Your task to perform on an android device: Go to display settings Image 0: 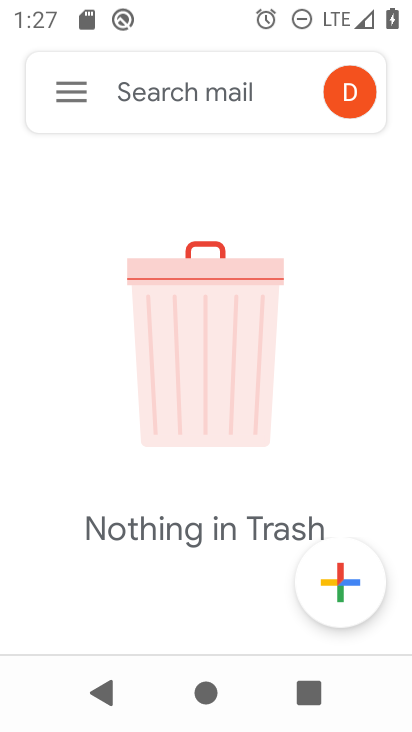
Step 0: press home button
Your task to perform on an android device: Go to display settings Image 1: 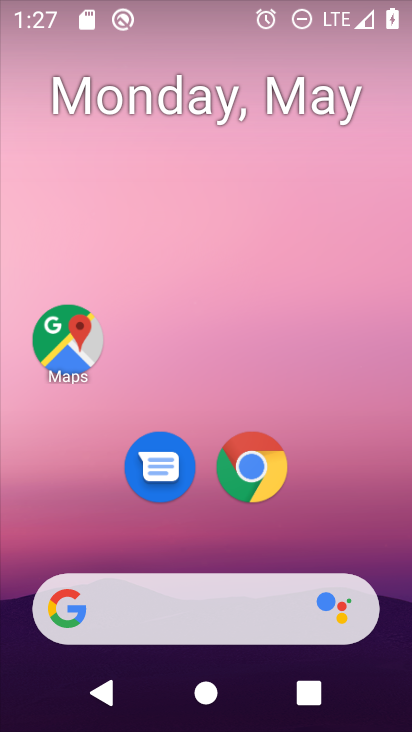
Step 1: drag from (350, 550) to (324, 5)
Your task to perform on an android device: Go to display settings Image 2: 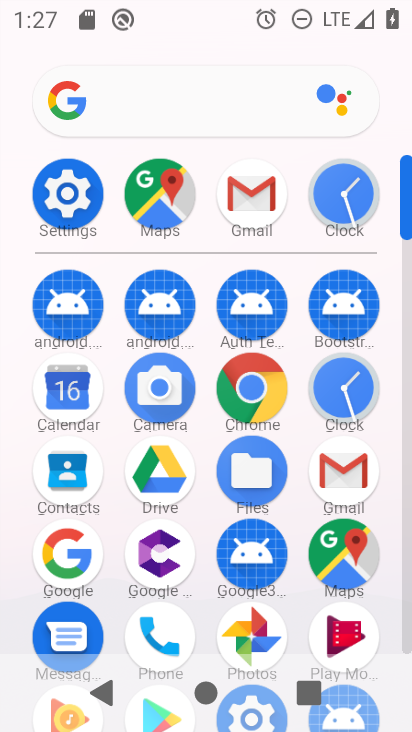
Step 2: click (65, 193)
Your task to perform on an android device: Go to display settings Image 3: 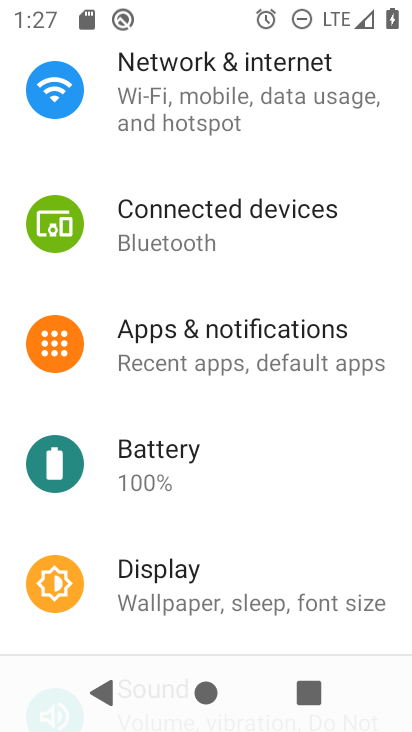
Step 3: click (164, 592)
Your task to perform on an android device: Go to display settings Image 4: 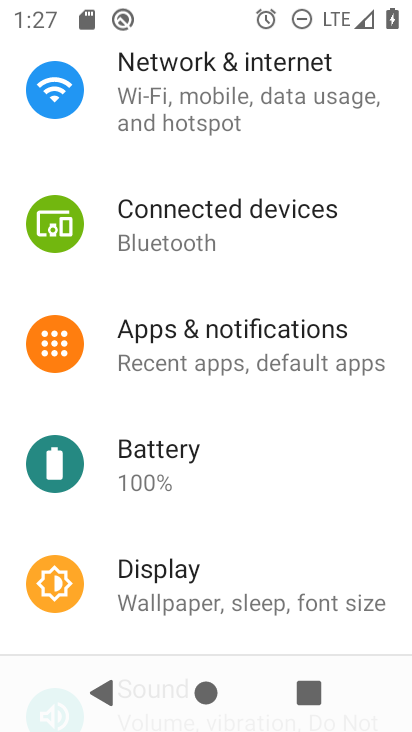
Step 4: click (155, 580)
Your task to perform on an android device: Go to display settings Image 5: 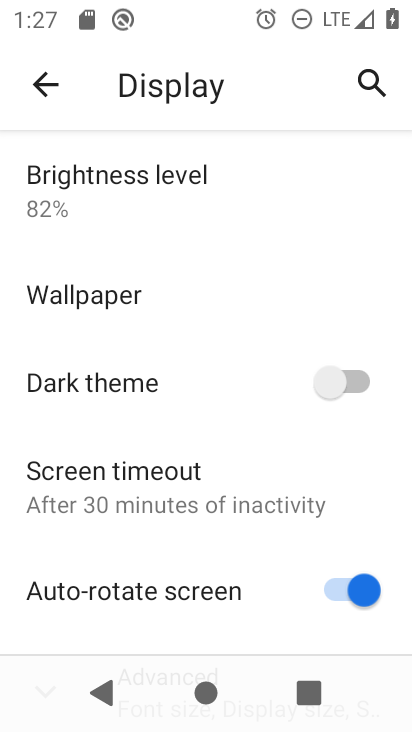
Step 5: task complete